Your task to perform on an android device: see creations saved in the google photos Image 0: 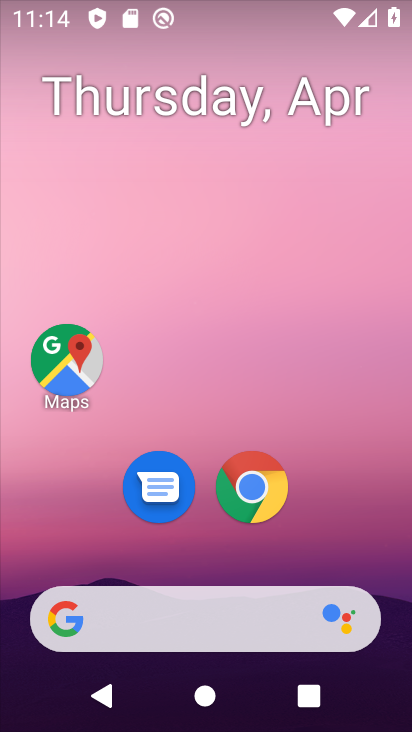
Step 0: drag from (359, 489) to (347, 216)
Your task to perform on an android device: see creations saved in the google photos Image 1: 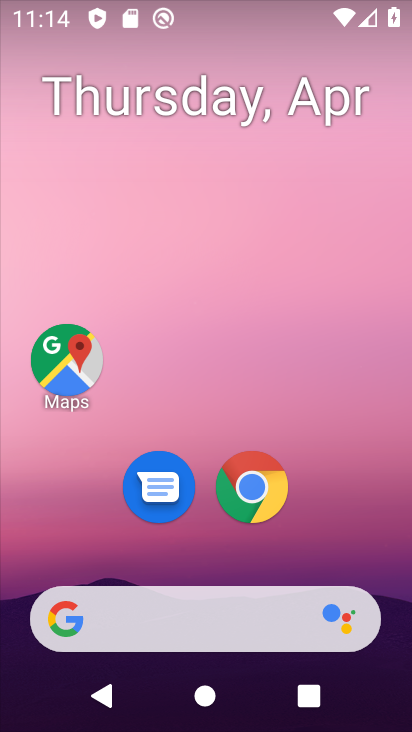
Step 1: drag from (313, 556) to (347, 223)
Your task to perform on an android device: see creations saved in the google photos Image 2: 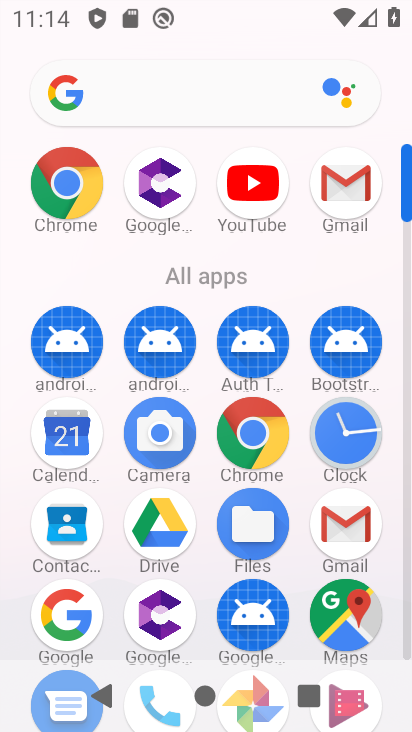
Step 2: drag from (231, 650) to (237, 413)
Your task to perform on an android device: see creations saved in the google photos Image 3: 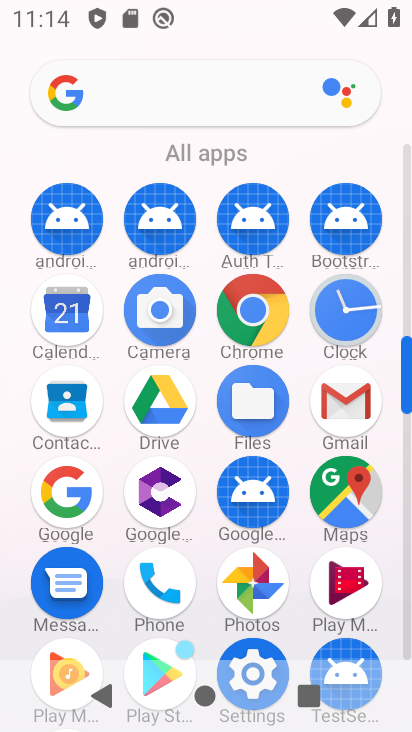
Step 3: click (247, 574)
Your task to perform on an android device: see creations saved in the google photos Image 4: 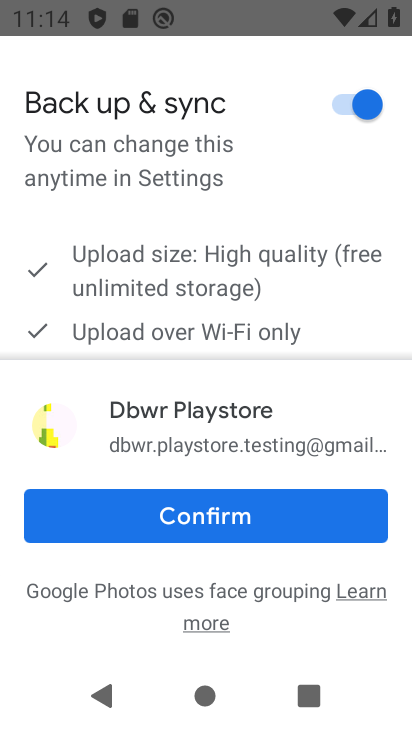
Step 4: click (168, 506)
Your task to perform on an android device: see creations saved in the google photos Image 5: 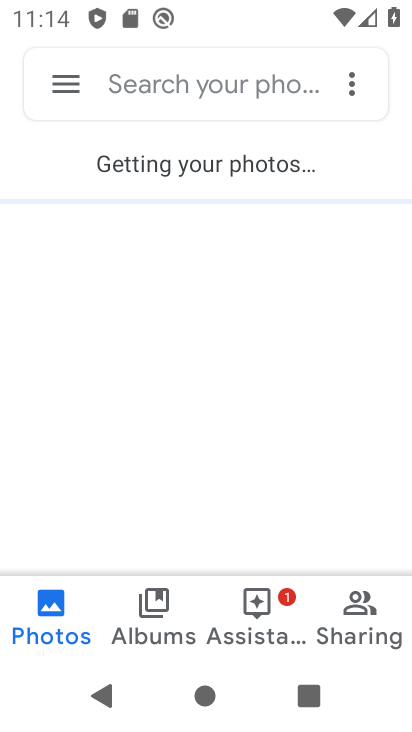
Step 5: click (159, 606)
Your task to perform on an android device: see creations saved in the google photos Image 6: 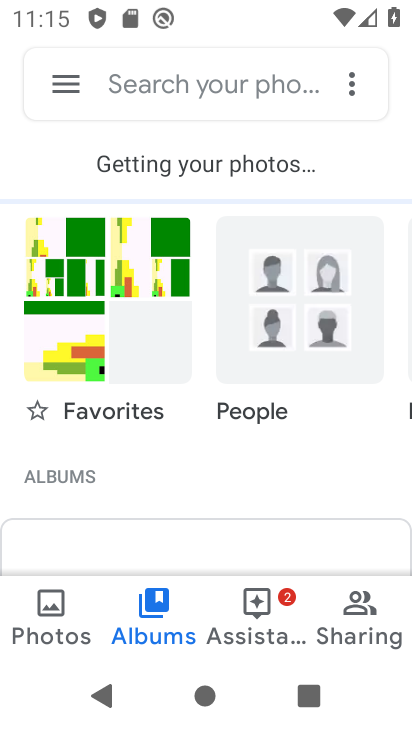
Step 6: click (64, 284)
Your task to perform on an android device: see creations saved in the google photos Image 7: 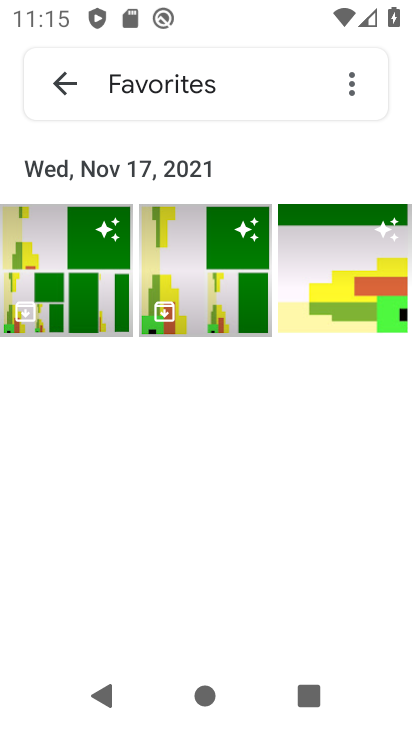
Step 7: task complete